Your task to perform on an android device: turn off wifi Image 0: 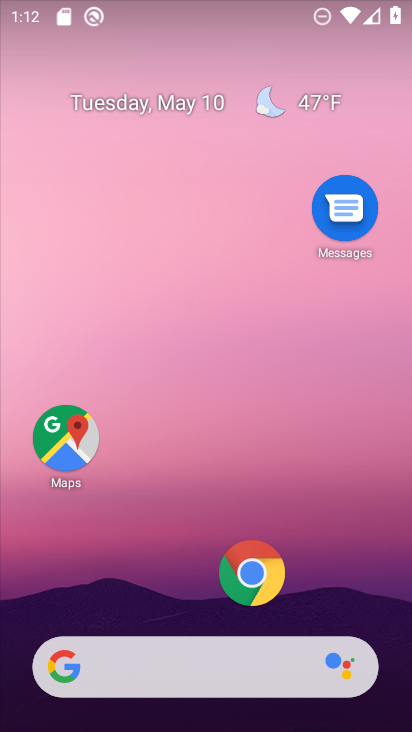
Step 0: drag from (198, 599) to (193, 232)
Your task to perform on an android device: turn off wifi Image 1: 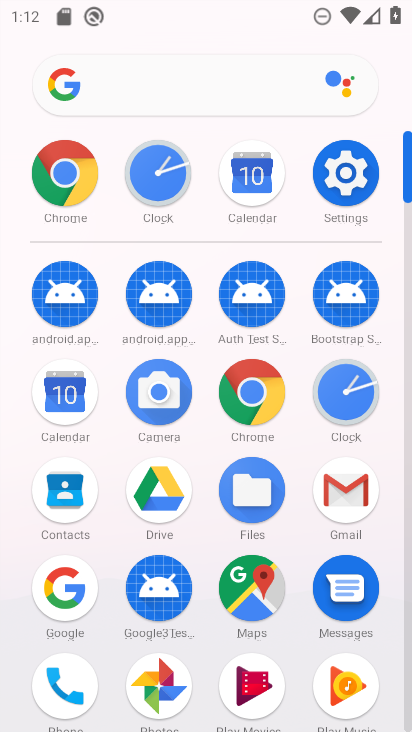
Step 1: click (357, 174)
Your task to perform on an android device: turn off wifi Image 2: 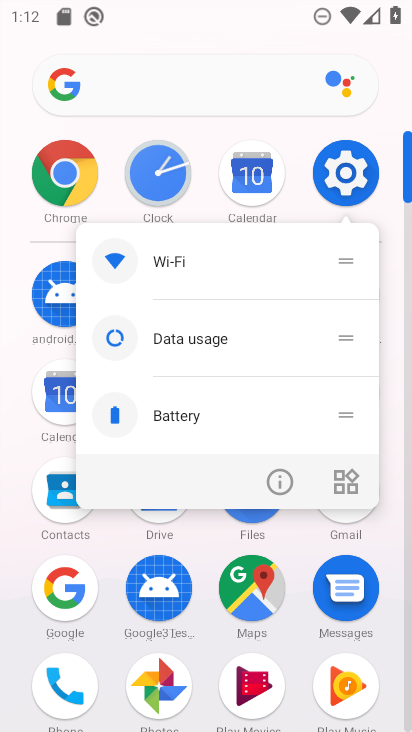
Step 2: click (289, 493)
Your task to perform on an android device: turn off wifi Image 3: 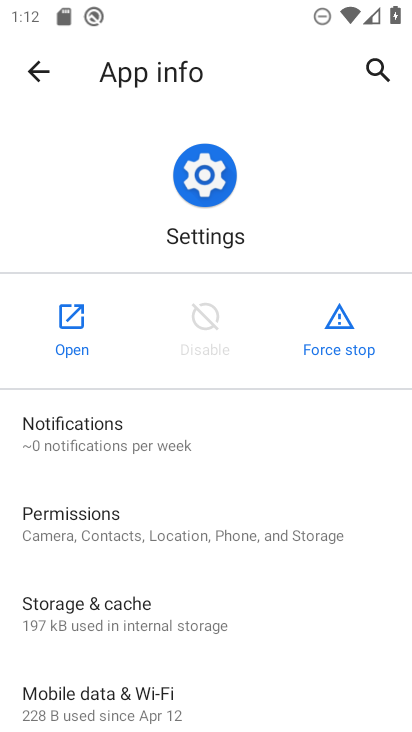
Step 3: click (70, 322)
Your task to perform on an android device: turn off wifi Image 4: 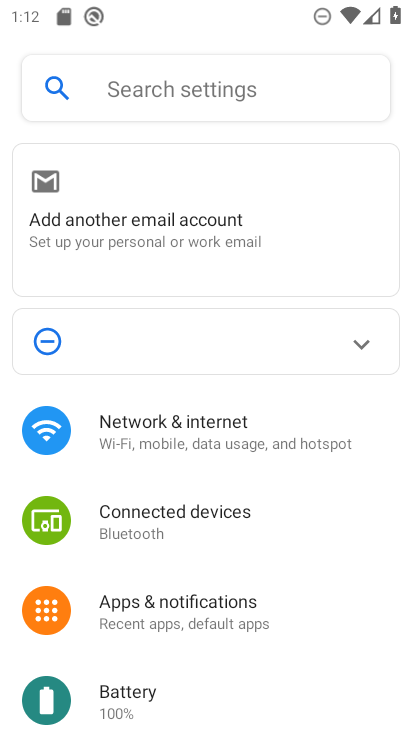
Step 4: click (160, 415)
Your task to perform on an android device: turn off wifi Image 5: 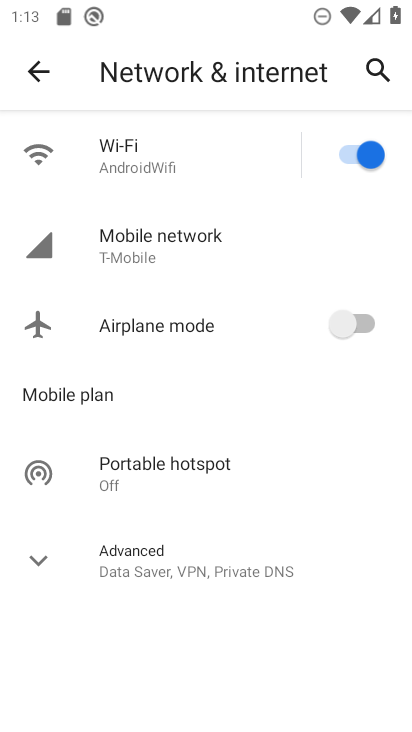
Step 5: click (176, 172)
Your task to perform on an android device: turn off wifi Image 6: 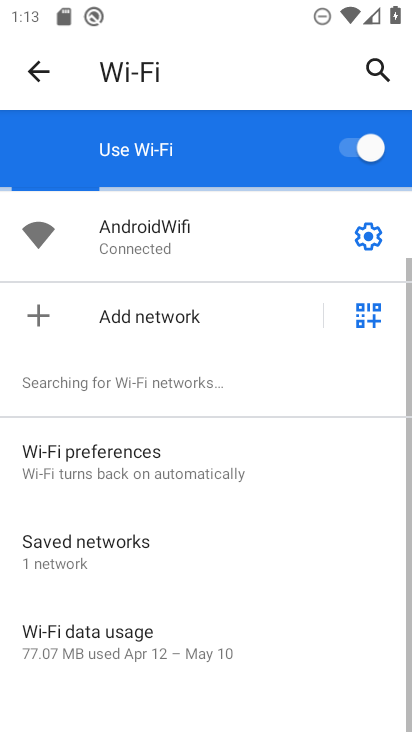
Step 6: click (350, 154)
Your task to perform on an android device: turn off wifi Image 7: 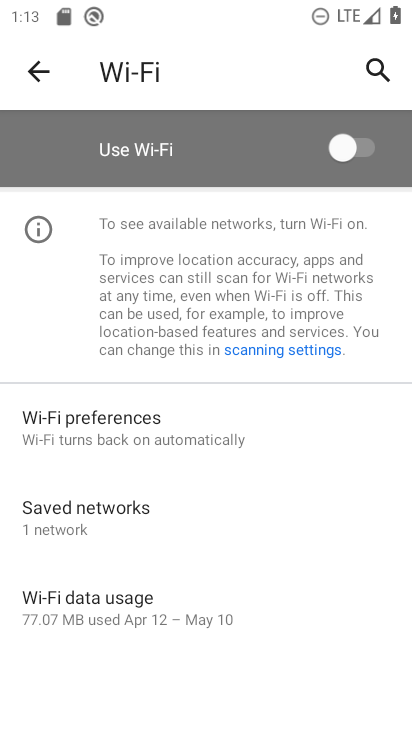
Step 7: task complete